Your task to perform on an android device: toggle notification dots Image 0: 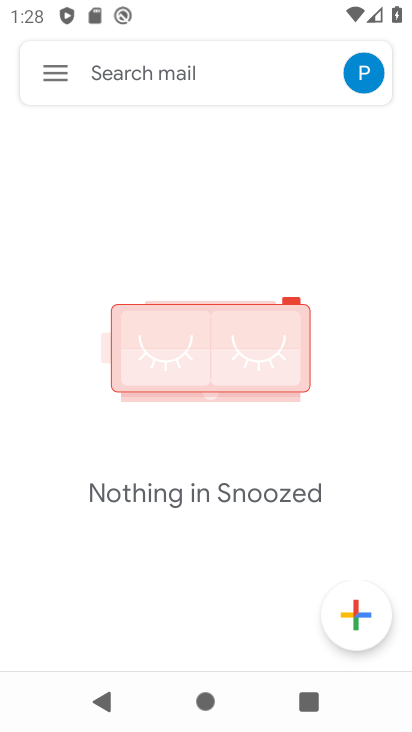
Step 0: press home button
Your task to perform on an android device: toggle notification dots Image 1: 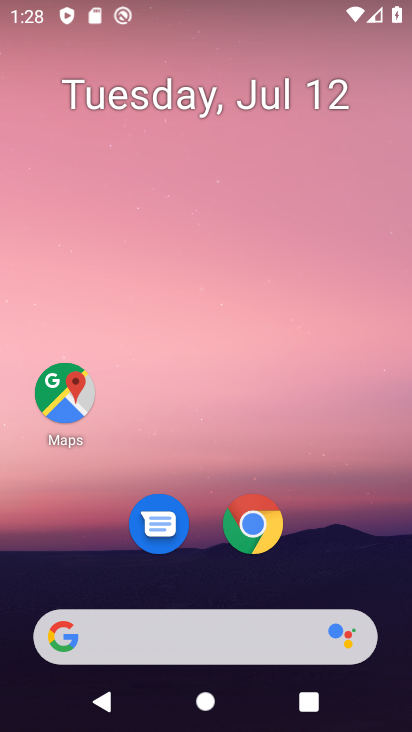
Step 1: drag from (345, 536) to (312, 48)
Your task to perform on an android device: toggle notification dots Image 2: 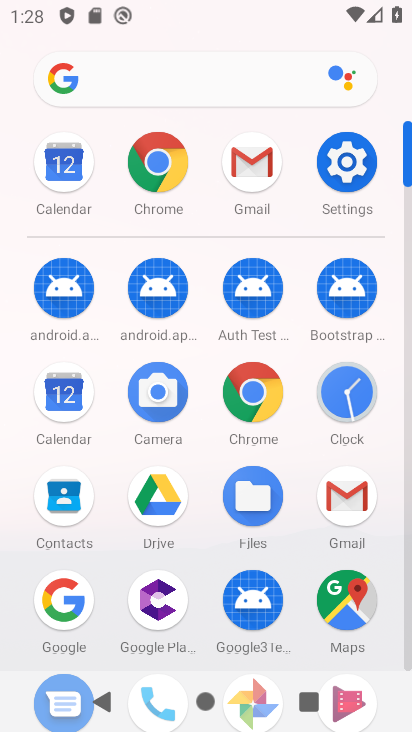
Step 2: click (344, 156)
Your task to perform on an android device: toggle notification dots Image 3: 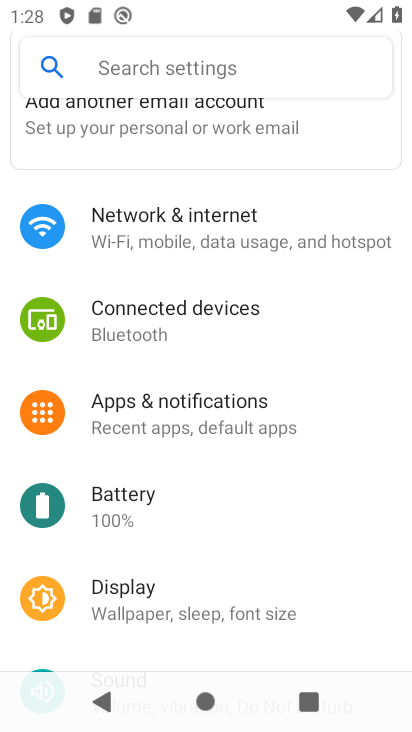
Step 3: click (223, 422)
Your task to perform on an android device: toggle notification dots Image 4: 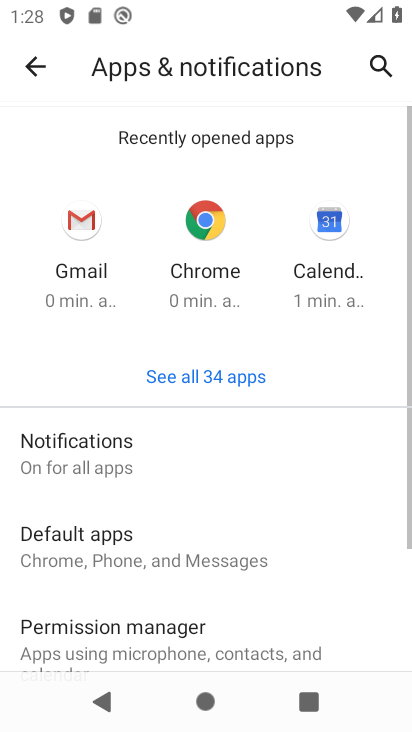
Step 4: click (112, 451)
Your task to perform on an android device: toggle notification dots Image 5: 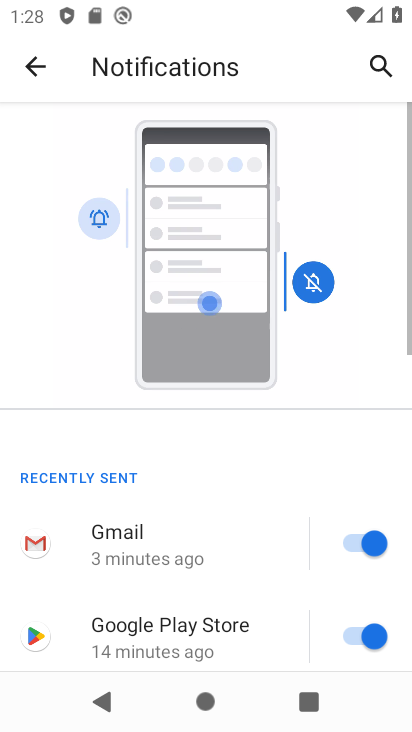
Step 5: drag from (264, 521) to (287, 12)
Your task to perform on an android device: toggle notification dots Image 6: 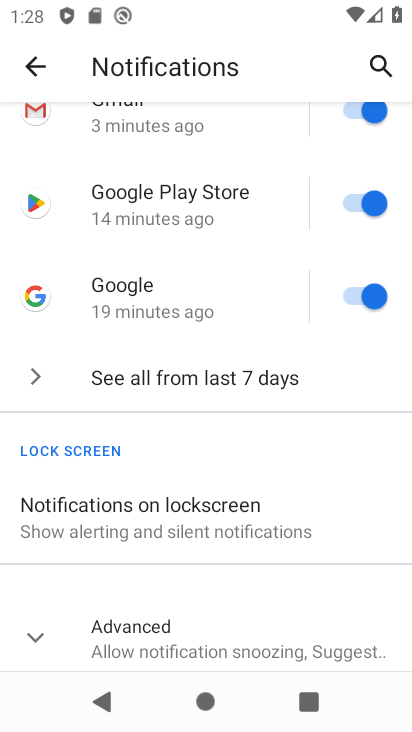
Step 6: click (36, 627)
Your task to perform on an android device: toggle notification dots Image 7: 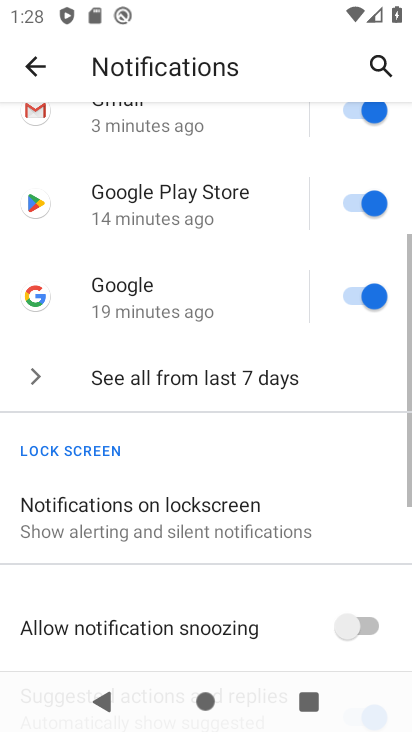
Step 7: drag from (209, 562) to (278, 184)
Your task to perform on an android device: toggle notification dots Image 8: 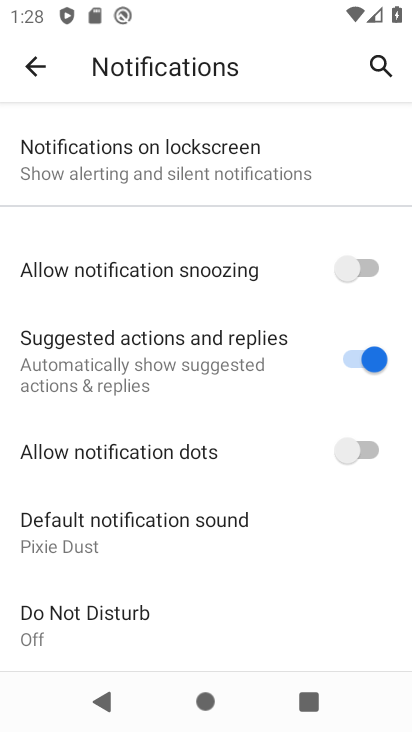
Step 8: click (360, 446)
Your task to perform on an android device: toggle notification dots Image 9: 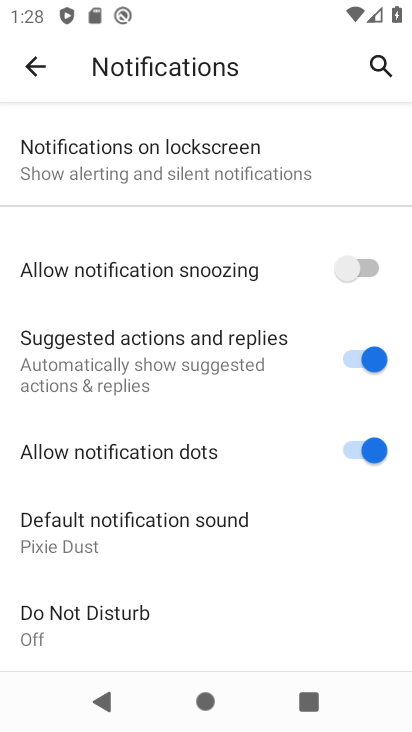
Step 9: task complete